Your task to perform on an android device: set default search engine in the chrome app Image 0: 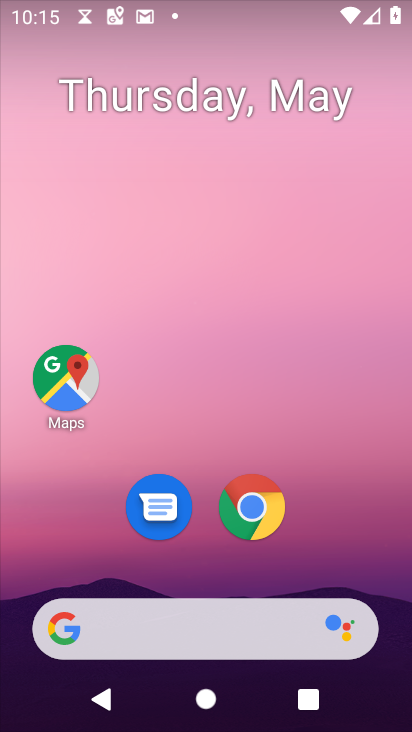
Step 0: click (249, 512)
Your task to perform on an android device: set default search engine in the chrome app Image 1: 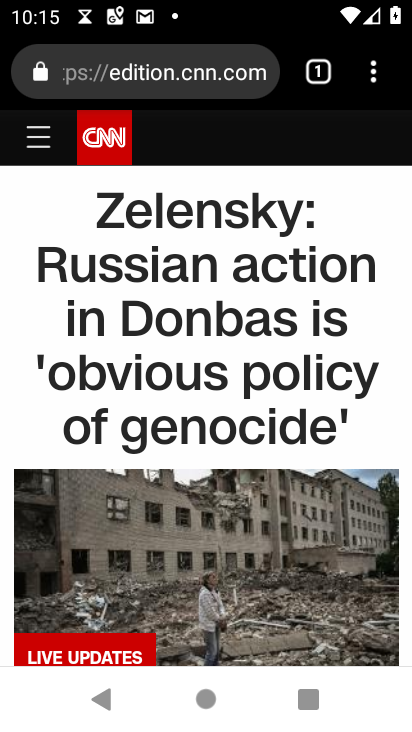
Step 1: click (377, 88)
Your task to perform on an android device: set default search engine in the chrome app Image 2: 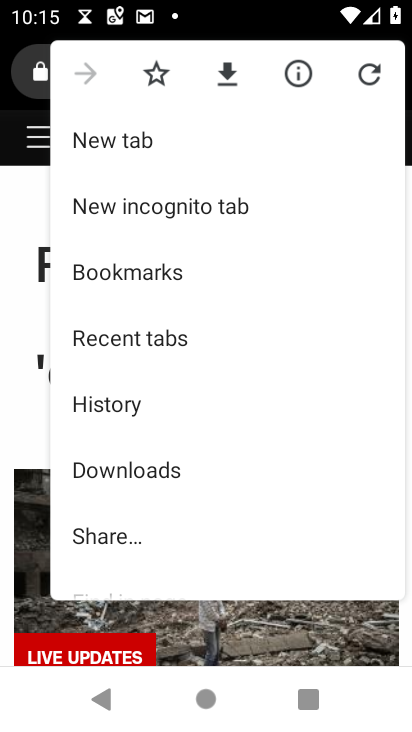
Step 2: drag from (302, 541) to (309, 259)
Your task to perform on an android device: set default search engine in the chrome app Image 3: 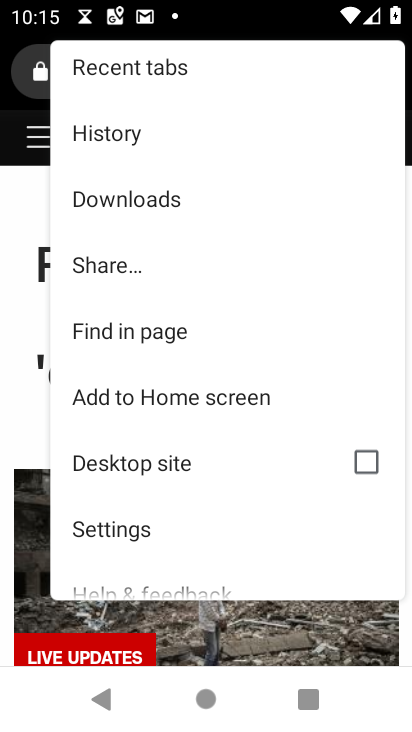
Step 3: click (139, 532)
Your task to perform on an android device: set default search engine in the chrome app Image 4: 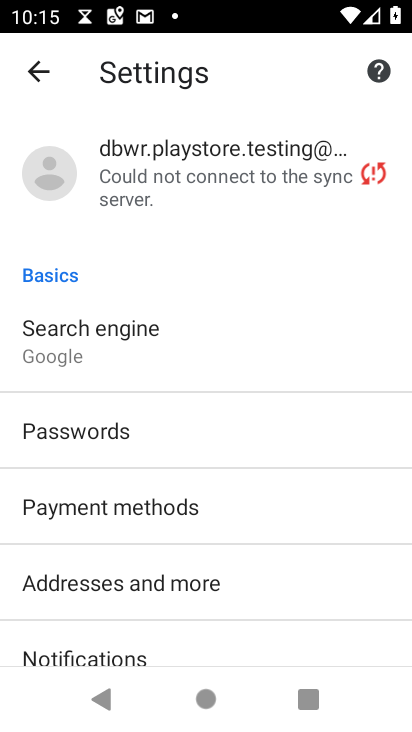
Step 4: click (109, 357)
Your task to perform on an android device: set default search engine in the chrome app Image 5: 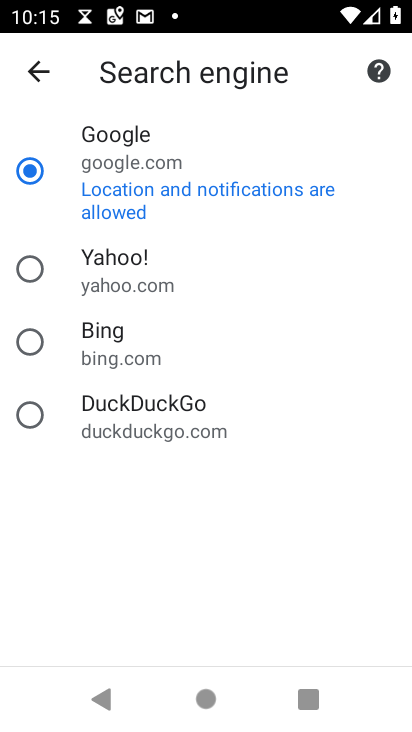
Step 5: click (124, 285)
Your task to perform on an android device: set default search engine in the chrome app Image 6: 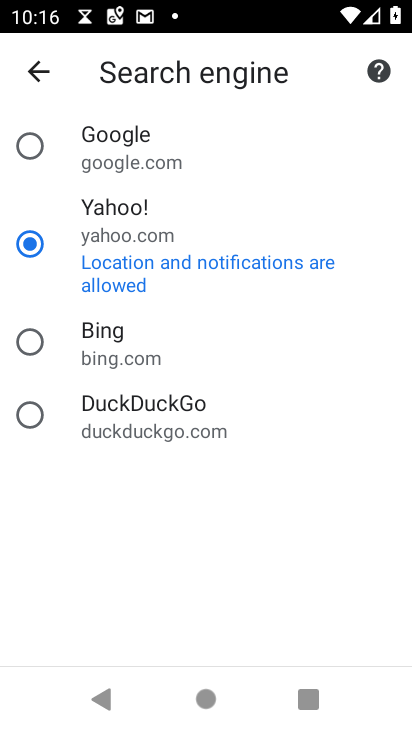
Step 6: task complete